Your task to perform on an android device: turn on sleep mode Image 0: 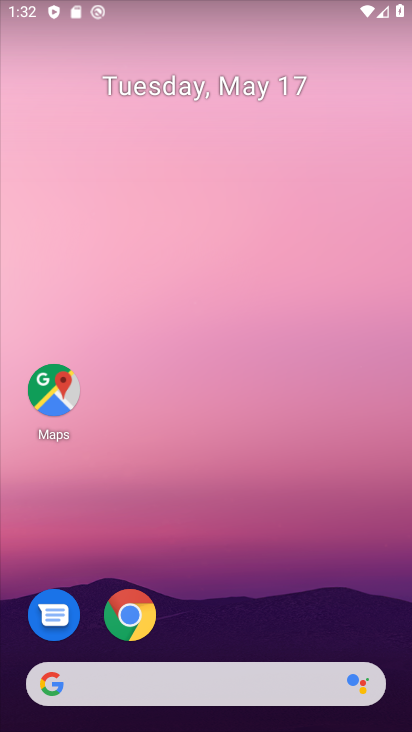
Step 0: drag from (249, 634) to (221, 26)
Your task to perform on an android device: turn on sleep mode Image 1: 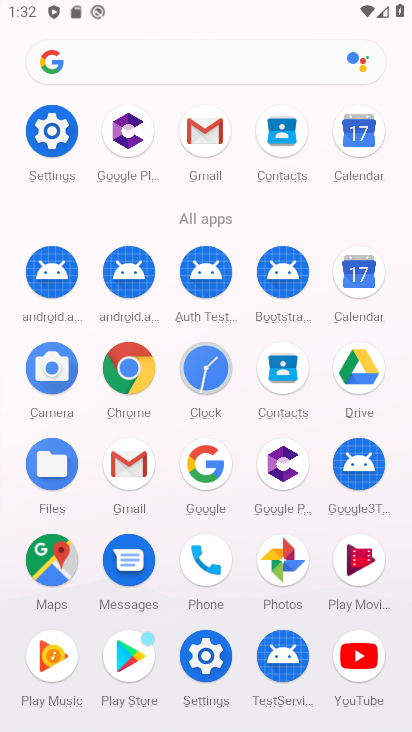
Step 1: click (35, 145)
Your task to perform on an android device: turn on sleep mode Image 2: 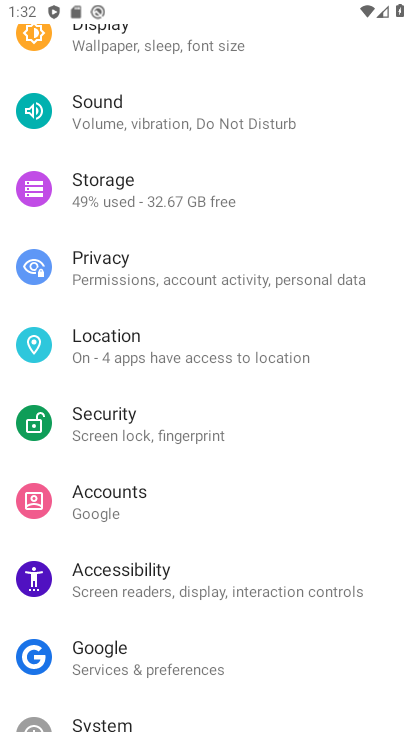
Step 2: drag from (131, 441) to (148, 610)
Your task to perform on an android device: turn on sleep mode Image 3: 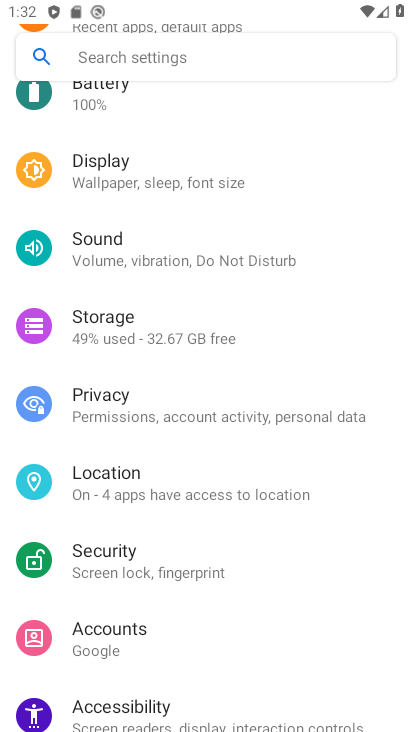
Step 3: drag from (190, 347) to (175, 635)
Your task to perform on an android device: turn on sleep mode Image 4: 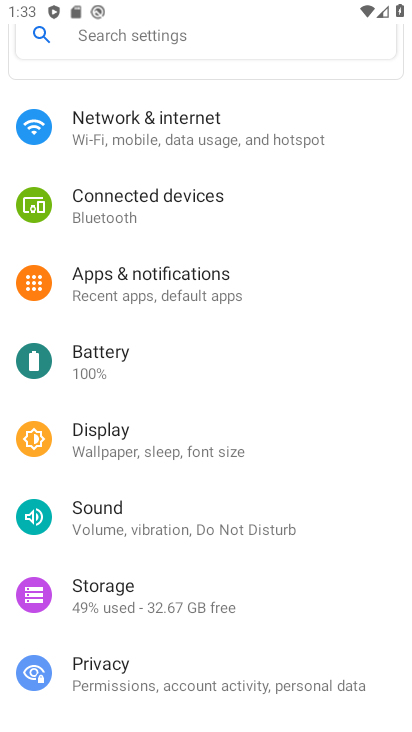
Step 4: drag from (175, 460) to (145, 639)
Your task to perform on an android device: turn on sleep mode Image 5: 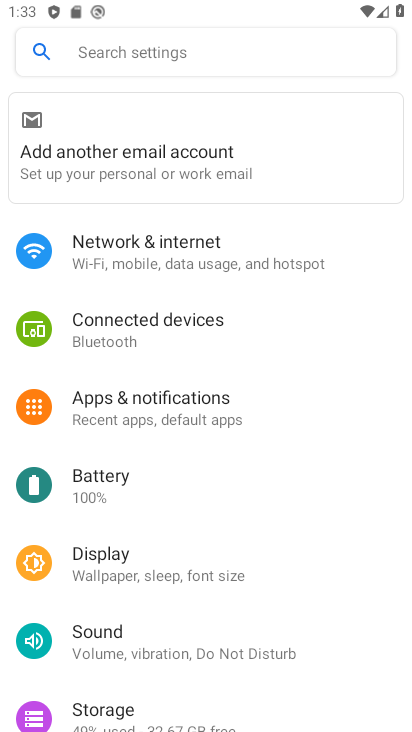
Step 5: click (120, 559)
Your task to perform on an android device: turn on sleep mode Image 6: 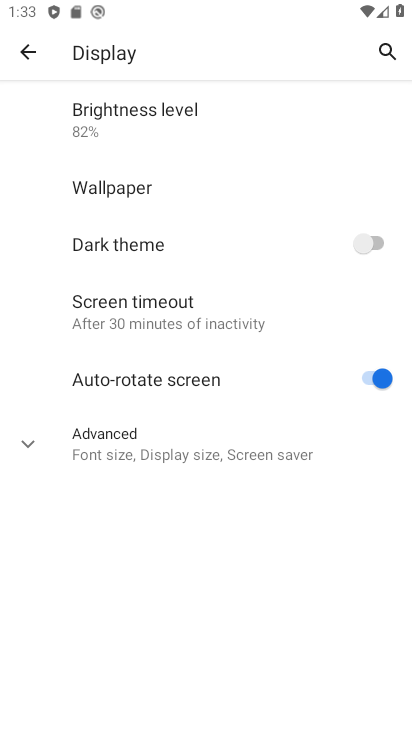
Step 6: click (220, 447)
Your task to perform on an android device: turn on sleep mode Image 7: 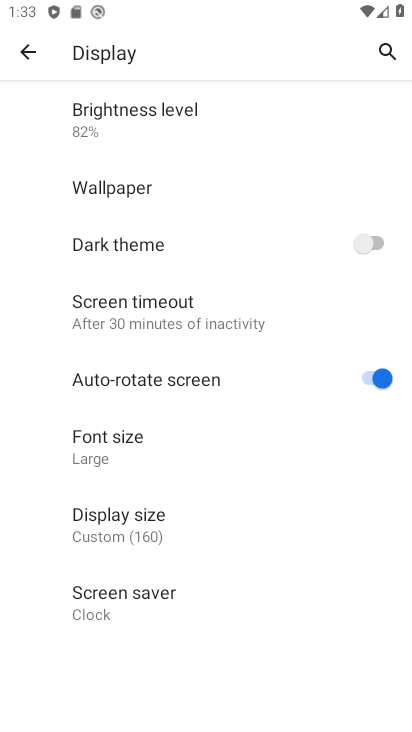
Step 7: click (21, 55)
Your task to perform on an android device: turn on sleep mode Image 8: 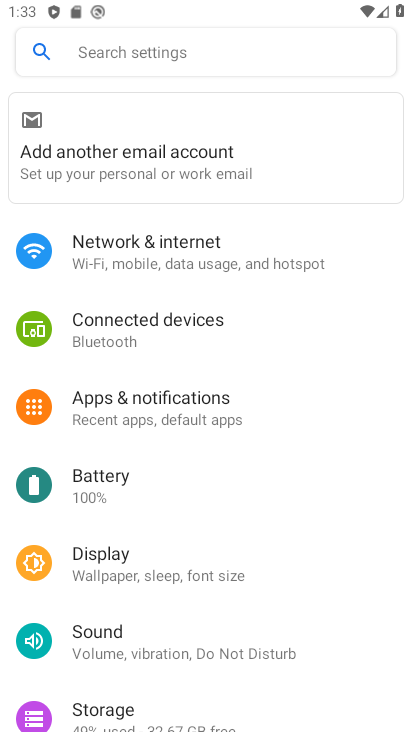
Step 8: task complete